Your task to perform on an android device: Play some music on YouTube Image 0: 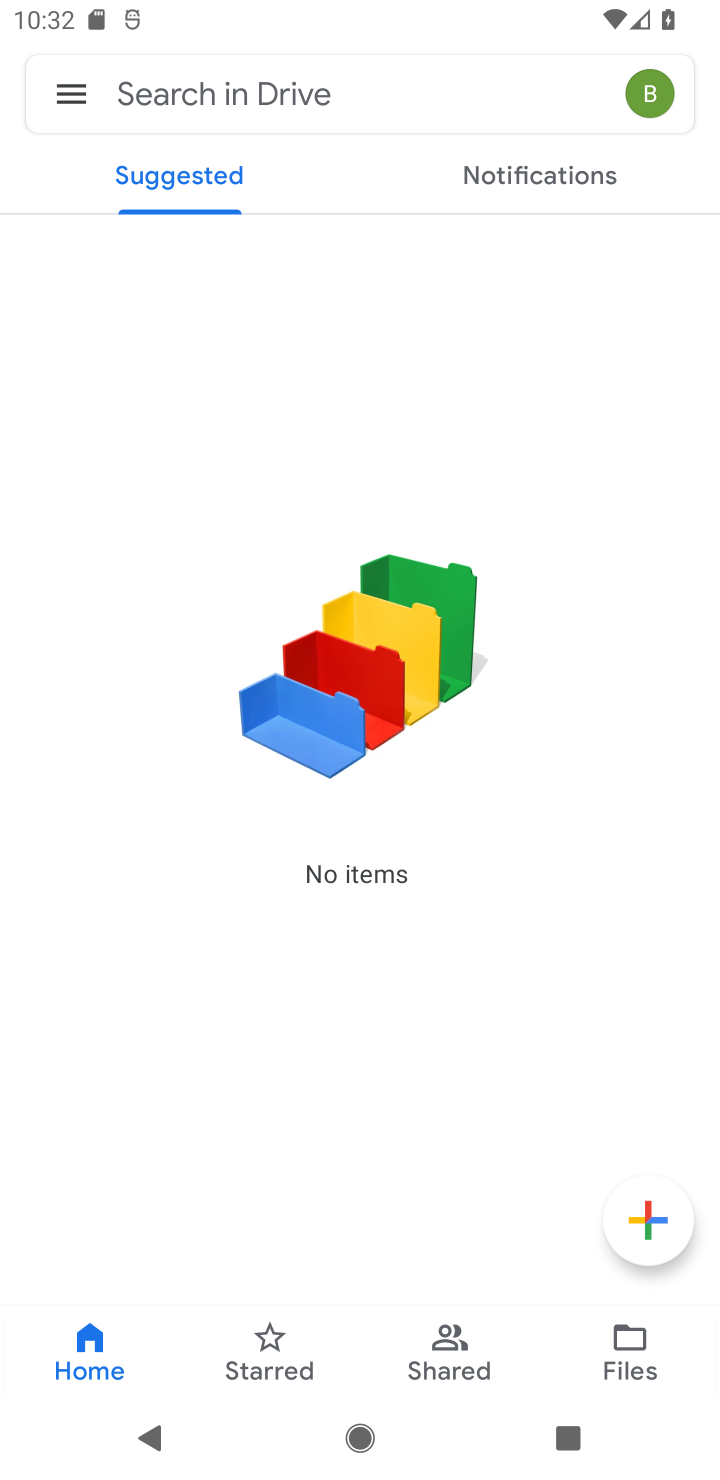
Step 0: press home button
Your task to perform on an android device: Play some music on YouTube Image 1: 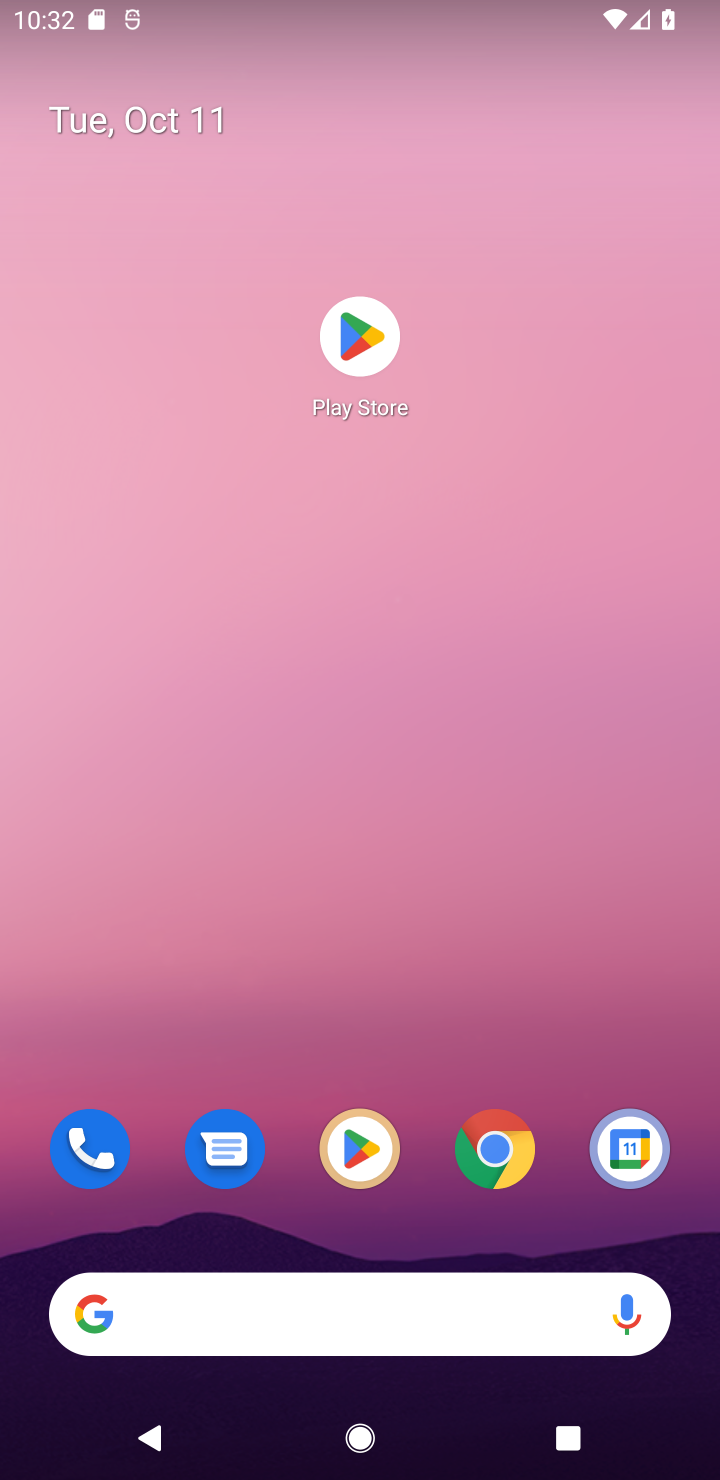
Step 1: drag from (351, 1097) to (351, 602)
Your task to perform on an android device: Play some music on YouTube Image 2: 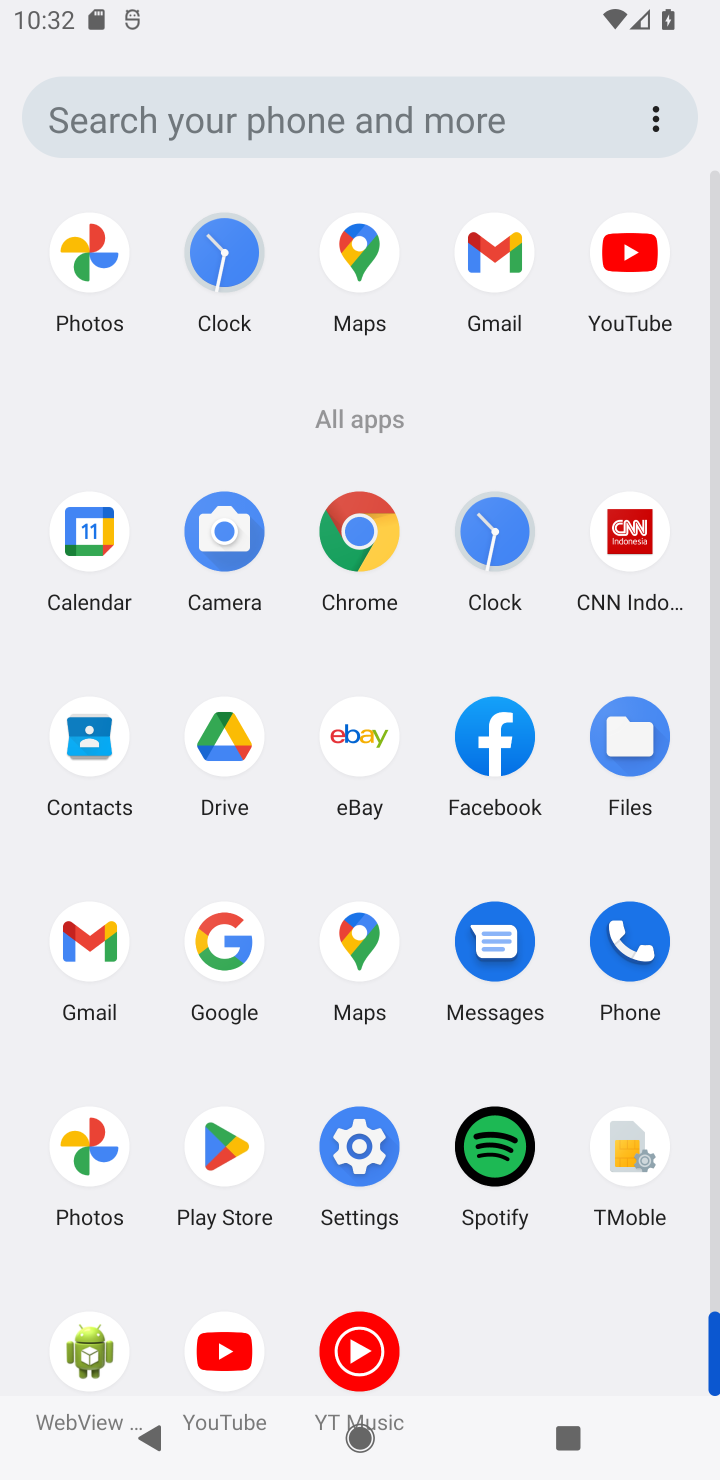
Step 2: click (611, 237)
Your task to perform on an android device: Play some music on YouTube Image 3: 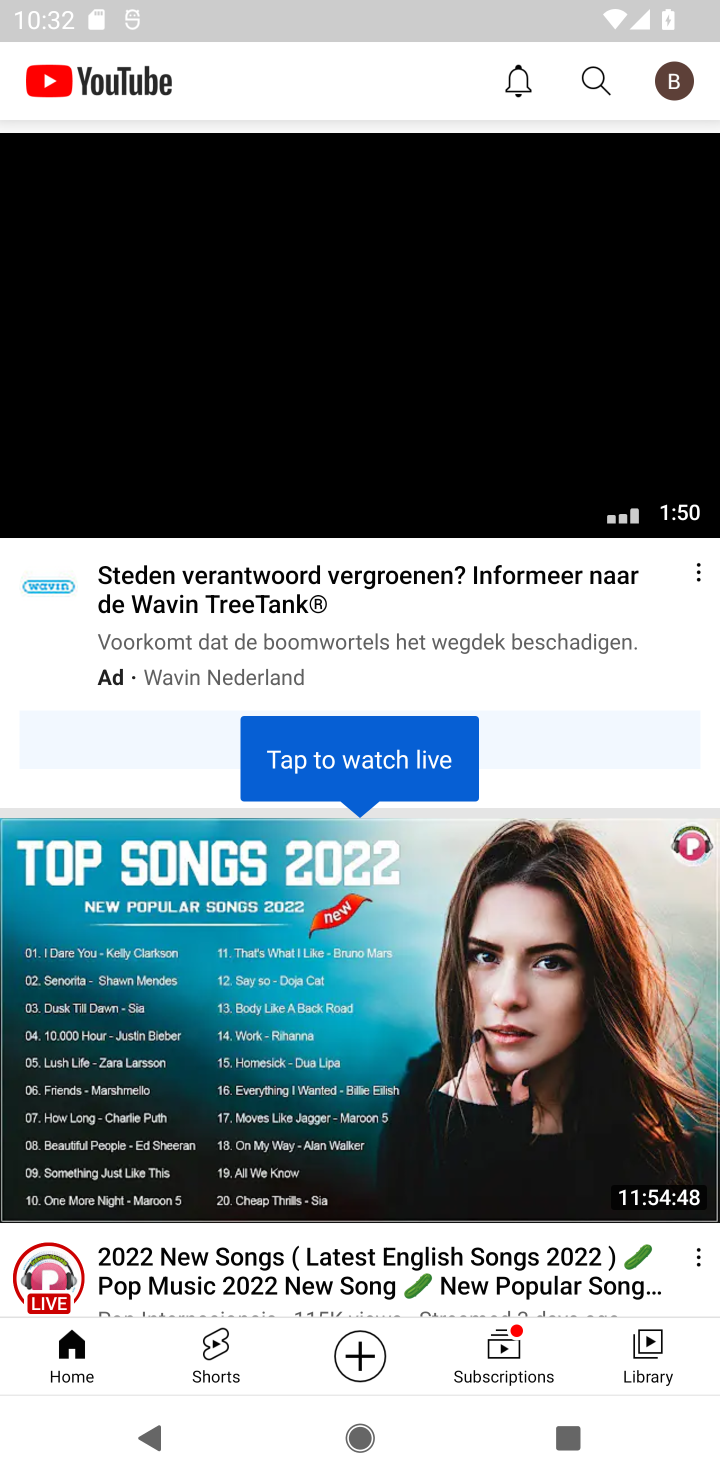
Step 3: click (598, 83)
Your task to perform on an android device: Play some music on YouTube Image 4: 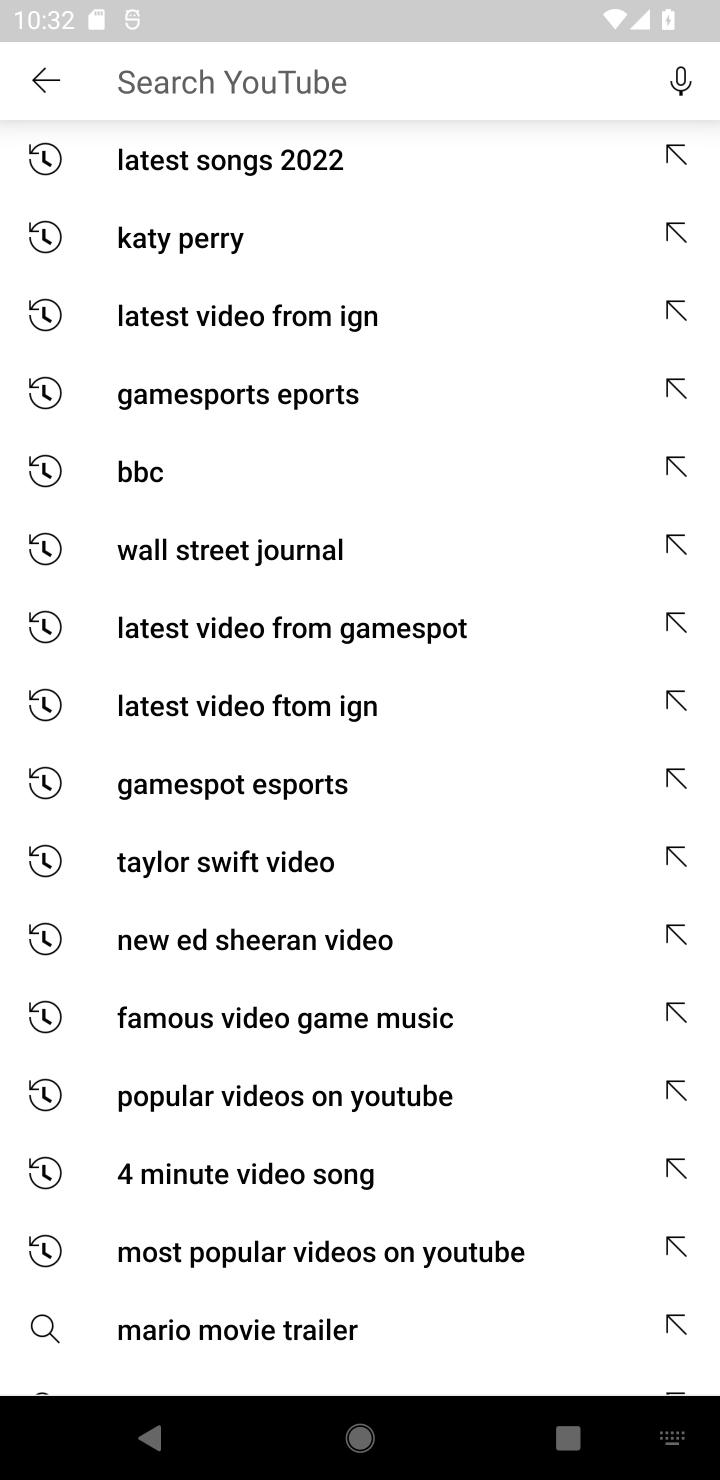
Step 4: click (49, 80)
Your task to perform on an android device: Play some music on YouTube Image 5: 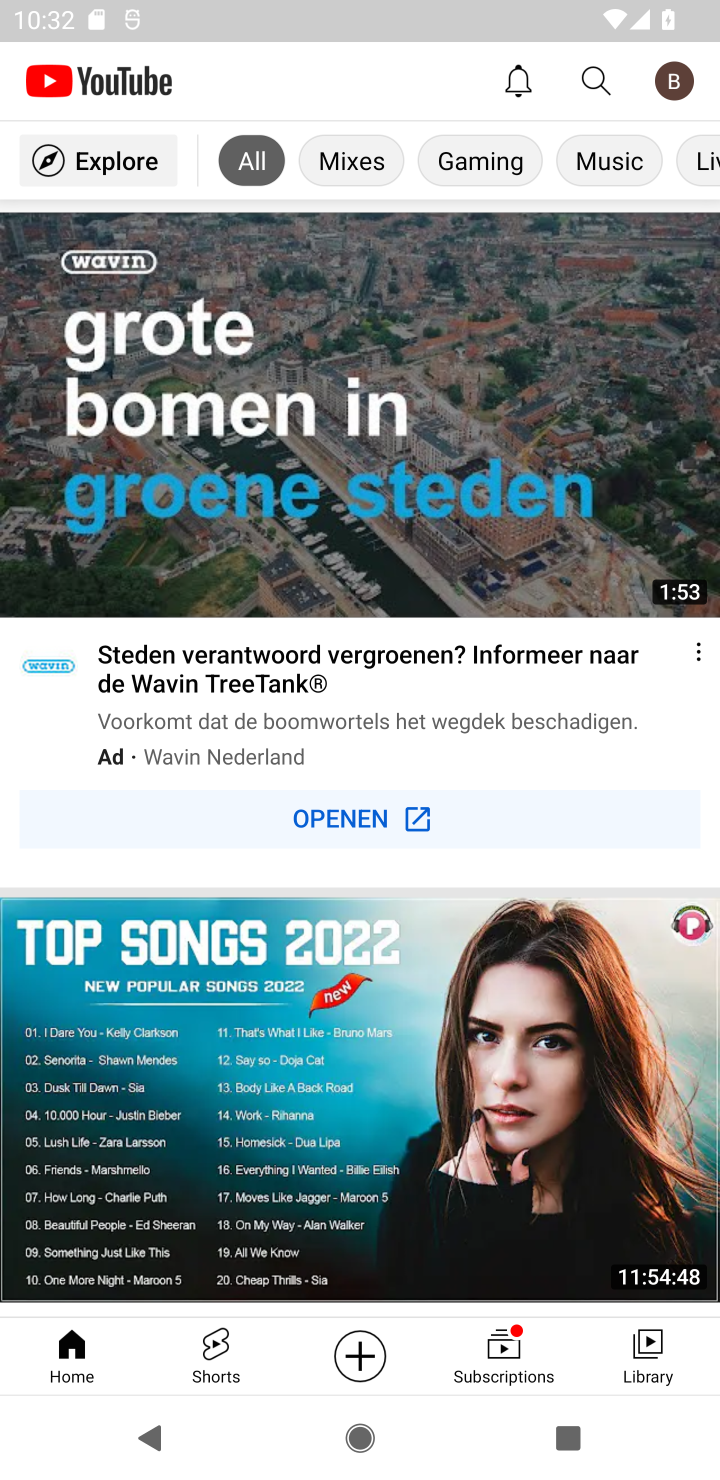
Step 5: click (440, 1300)
Your task to perform on an android device: Play some music on YouTube Image 6: 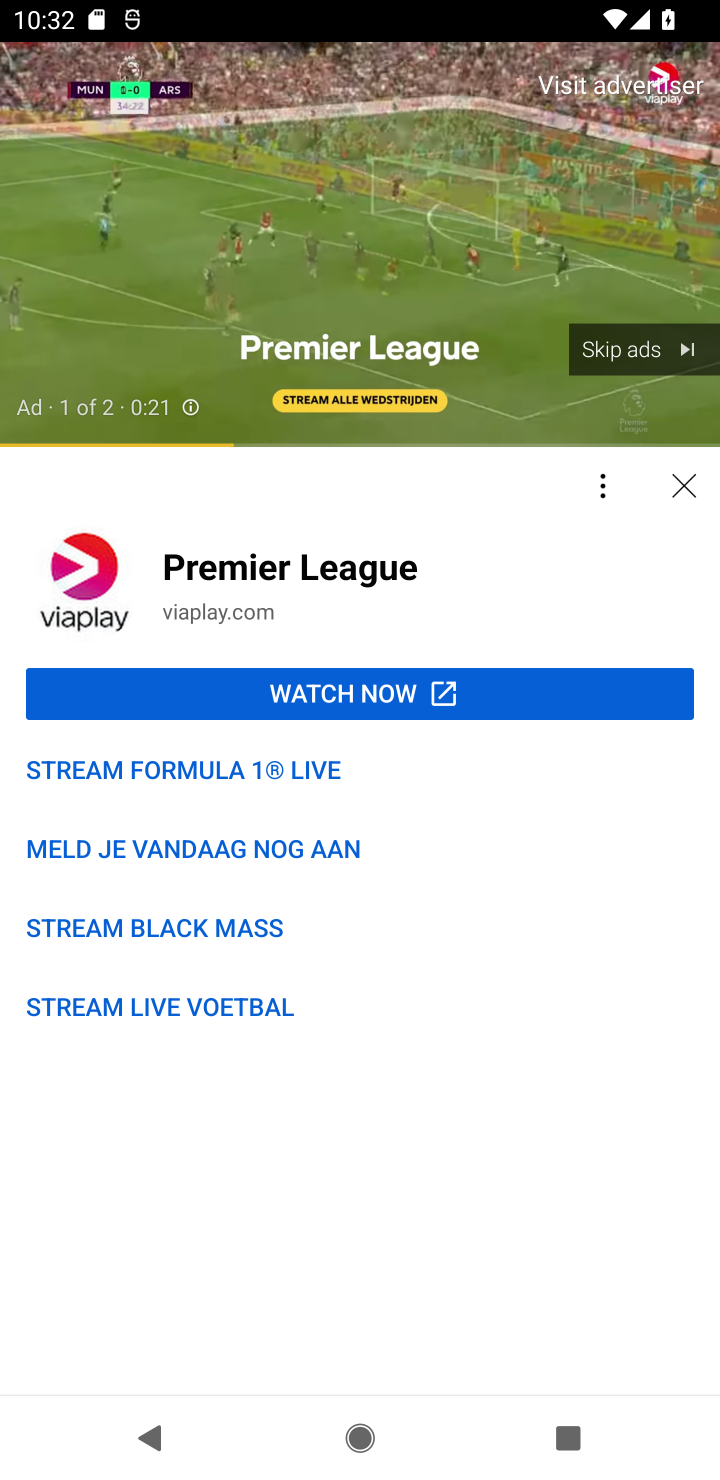
Step 6: click (687, 486)
Your task to perform on an android device: Play some music on YouTube Image 7: 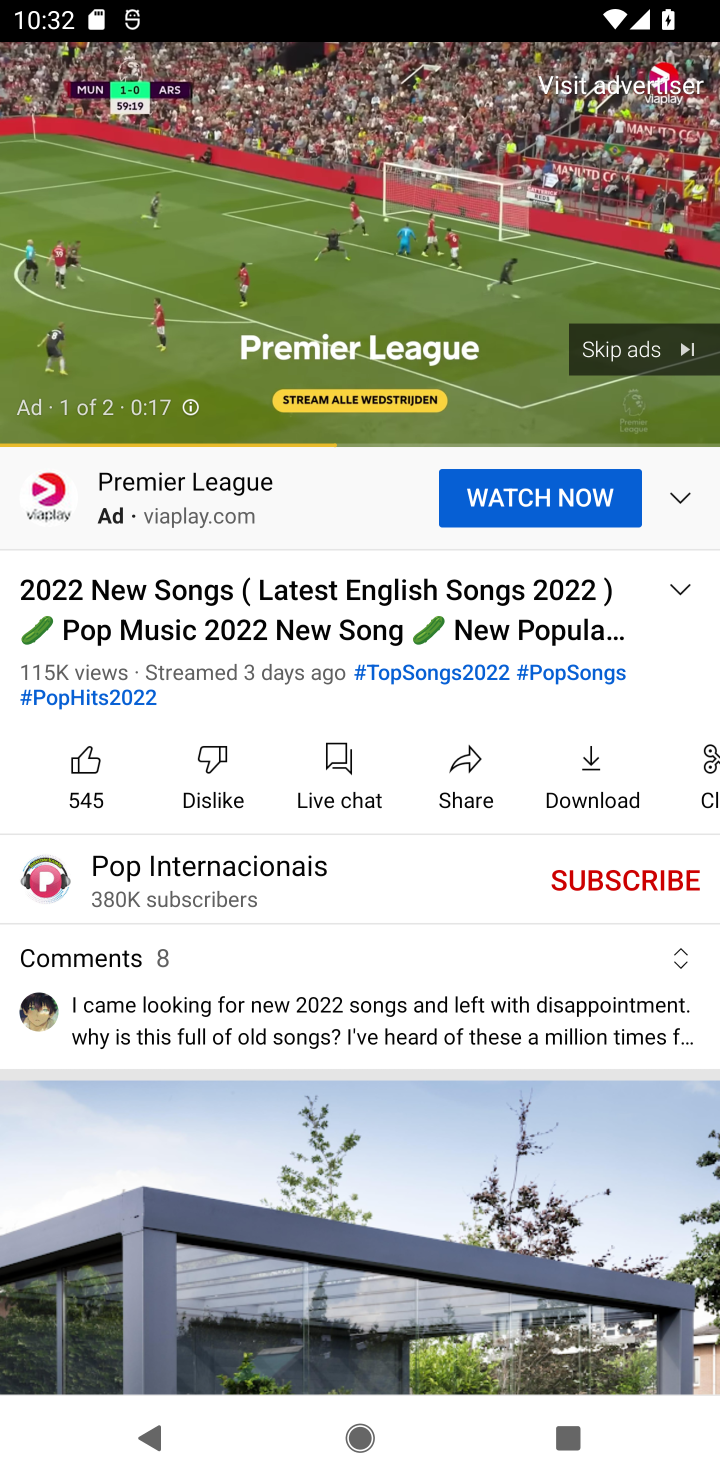
Step 7: click (633, 342)
Your task to perform on an android device: Play some music on YouTube Image 8: 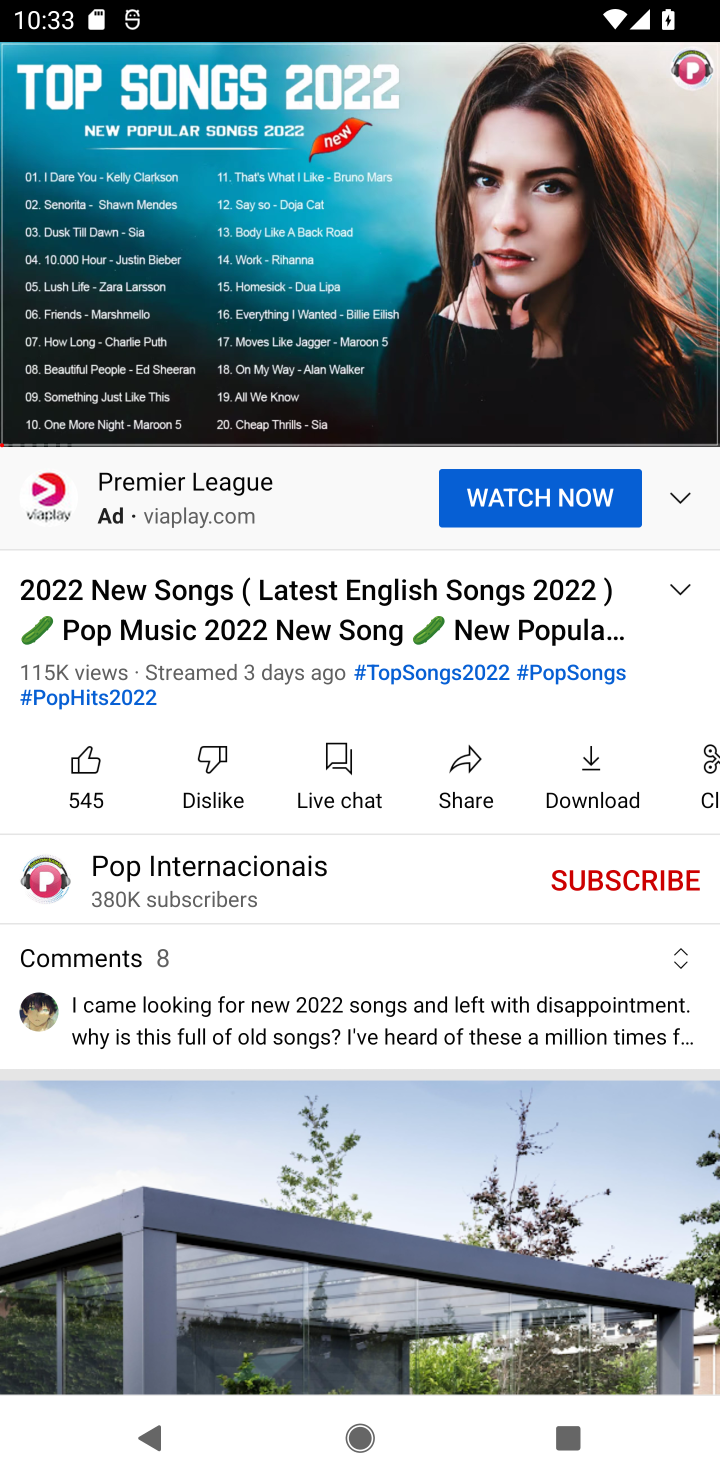
Step 8: task complete